Your task to perform on an android device: Open sound settings Image 0: 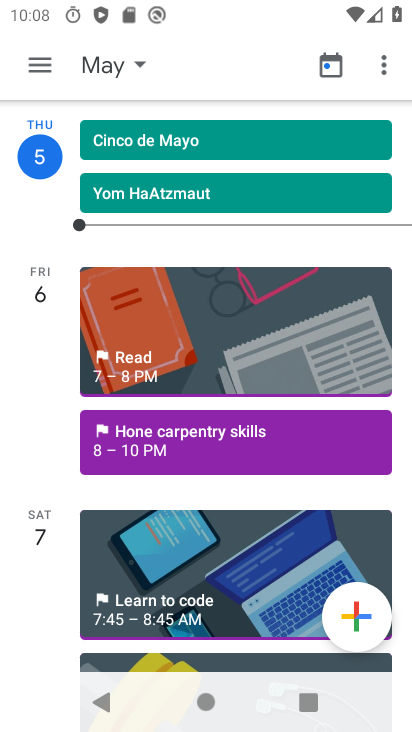
Step 0: press home button
Your task to perform on an android device: Open sound settings Image 1: 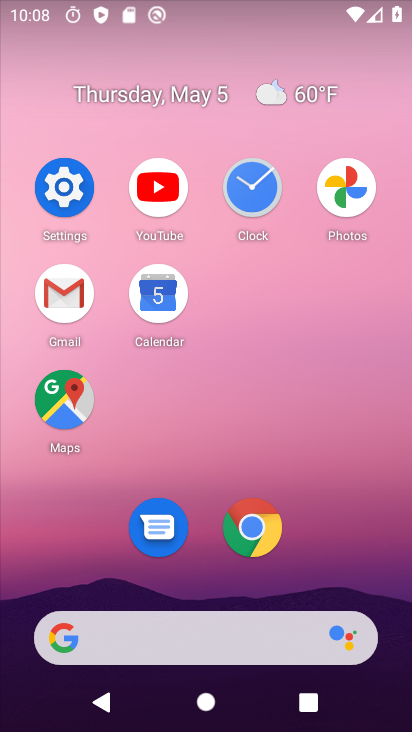
Step 1: click (77, 197)
Your task to perform on an android device: Open sound settings Image 2: 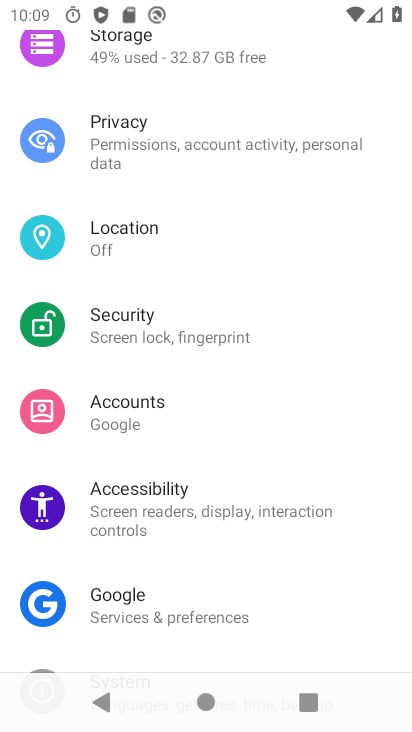
Step 2: drag from (254, 271) to (275, 426)
Your task to perform on an android device: Open sound settings Image 3: 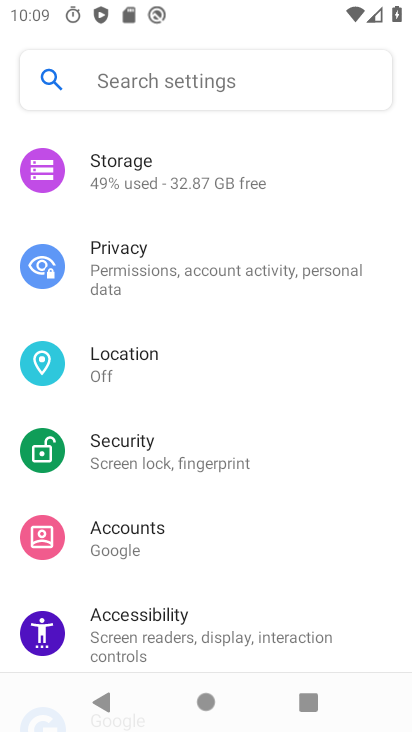
Step 3: drag from (261, 349) to (284, 621)
Your task to perform on an android device: Open sound settings Image 4: 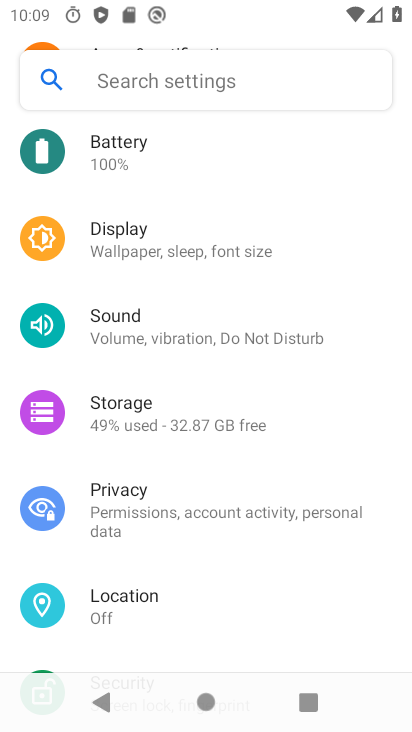
Step 4: drag from (273, 240) to (264, 475)
Your task to perform on an android device: Open sound settings Image 5: 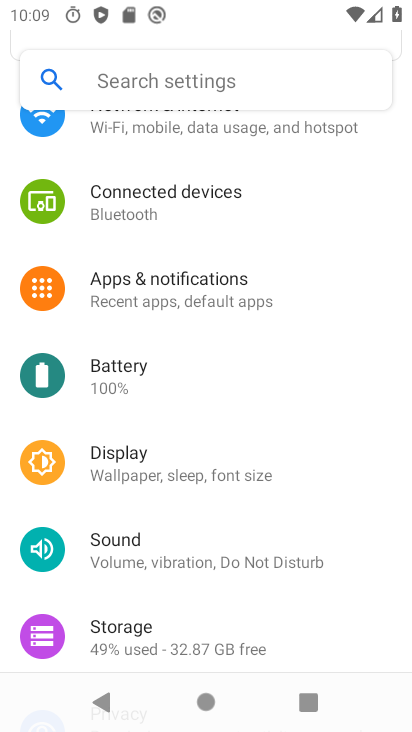
Step 5: click (198, 547)
Your task to perform on an android device: Open sound settings Image 6: 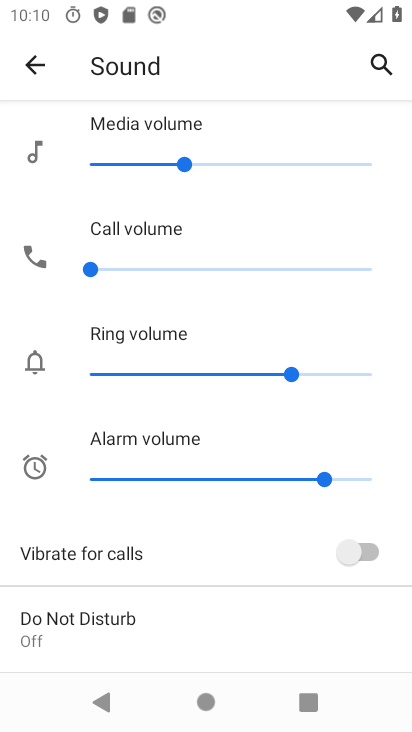
Step 6: task complete